Your task to perform on an android device: Search for Italian restaurants on Maps Image 0: 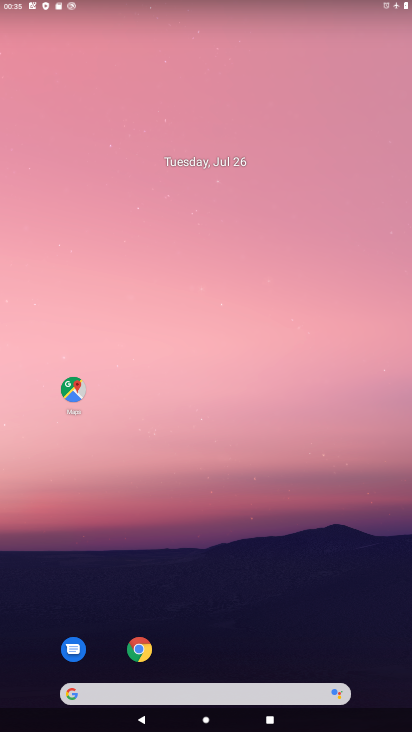
Step 0: drag from (215, 606) to (164, 211)
Your task to perform on an android device: Search for Italian restaurants on Maps Image 1: 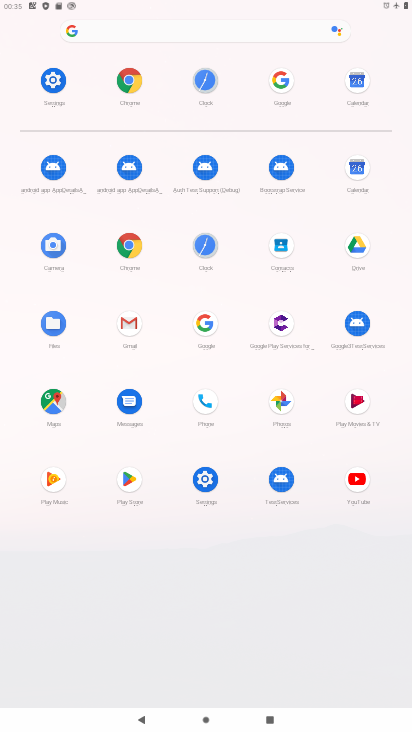
Step 1: click (50, 401)
Your task to perform on an android device: Search for Italian restaurants on Maps Image 2: 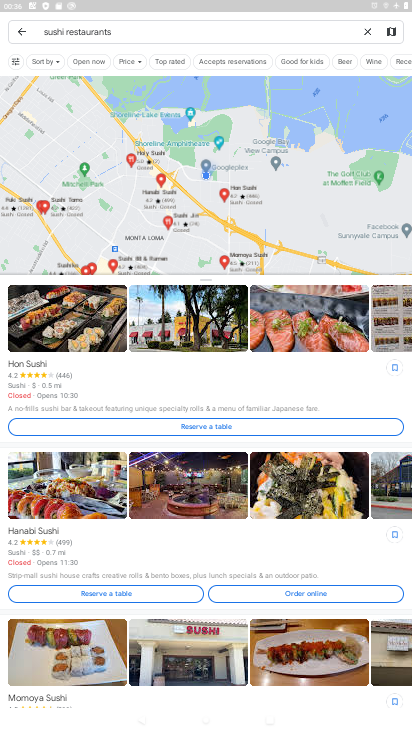
Step 2: click (200, 36)
Your task to perform on an android device: Search for Italian restaurants on Maps Image 3: 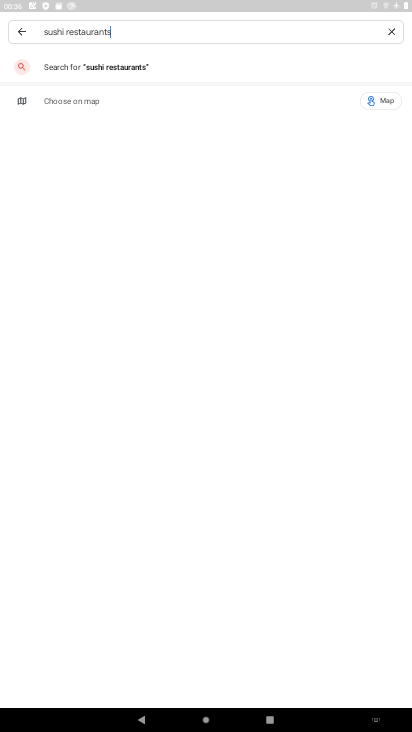
Step 3: click (389, 30)
Your task to perform on an android device: Search for Italian restaurants on Maps Image 4: 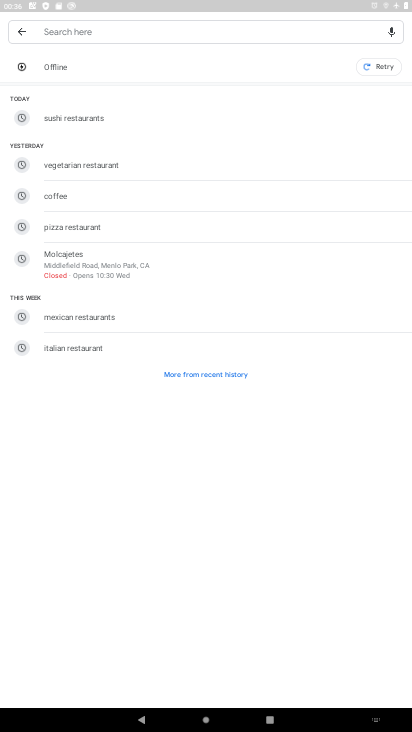
Step 4: type "italian restaurants"
Your task to perform on an android device: Search for Italian restaurants on Maps Image 5: 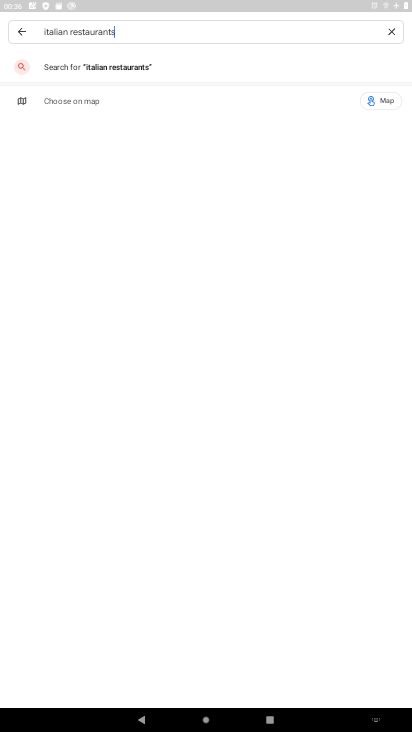
Step 5: click (119, 67)
Your task to perform on an android device: Search for Italian restaurants on Maps Image 6: 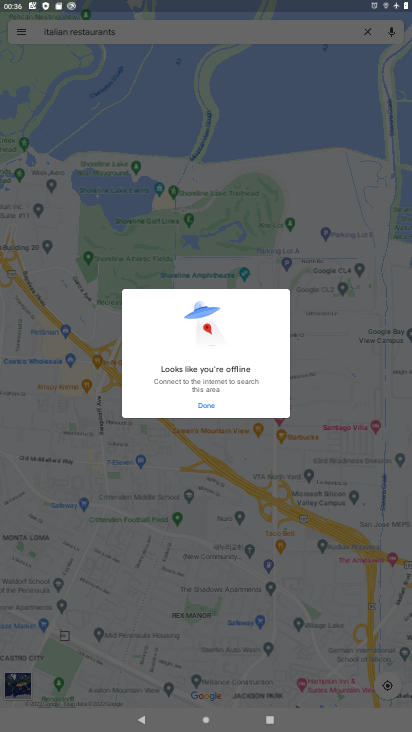
Step 6: task complete